Your task to perform on an android device: Go to privacy settings Image 0: 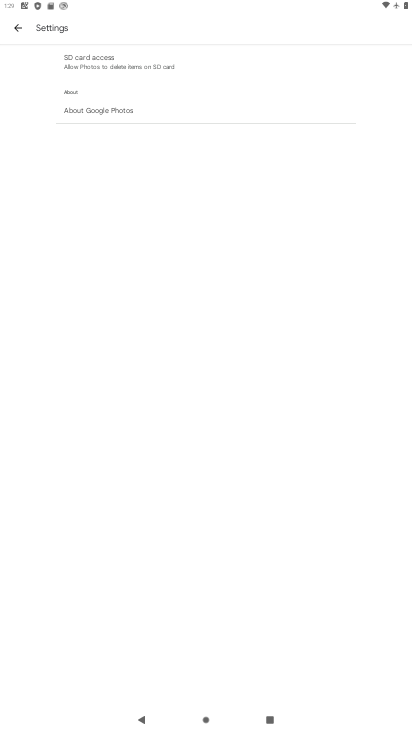
Step 0: drag from (288, 601) to (290, 457)
Your task to perform on an android device: Go to privacy settings Image 1: 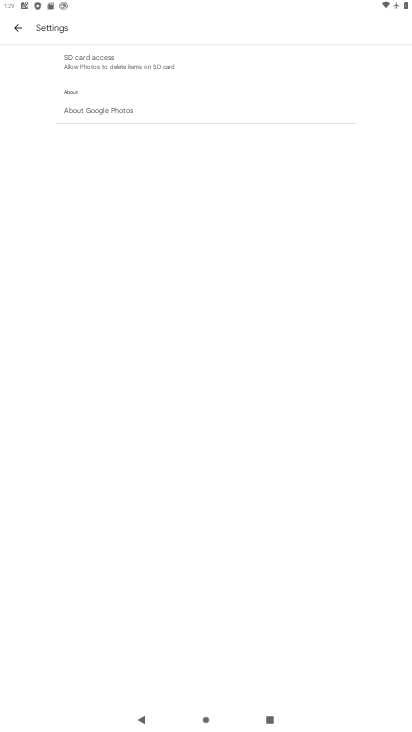
Step 1: press home button
Your task to perform on an android device: Go to privacy settings Image 2: 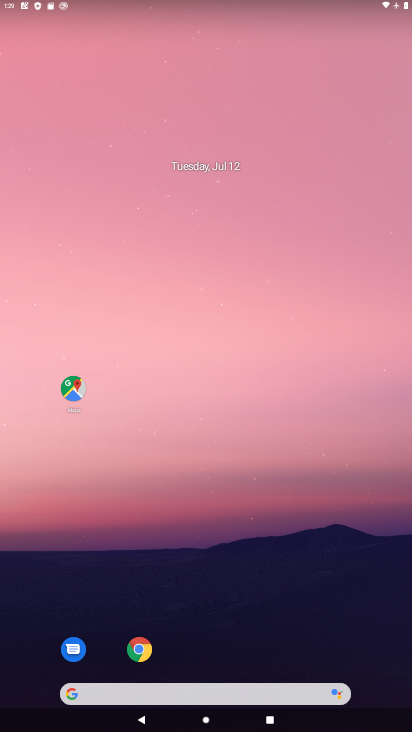
Step 2: drag from (299, 630) to (252, 284)
Your task to perform on an android device: Go to privacy settings Image 3: 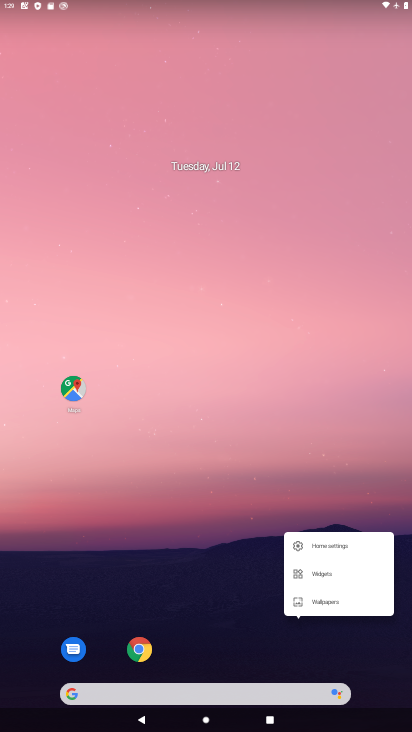
Step 3: click (205, 382)
Your task to perform on an android device: Go to privacy settings Image 4: 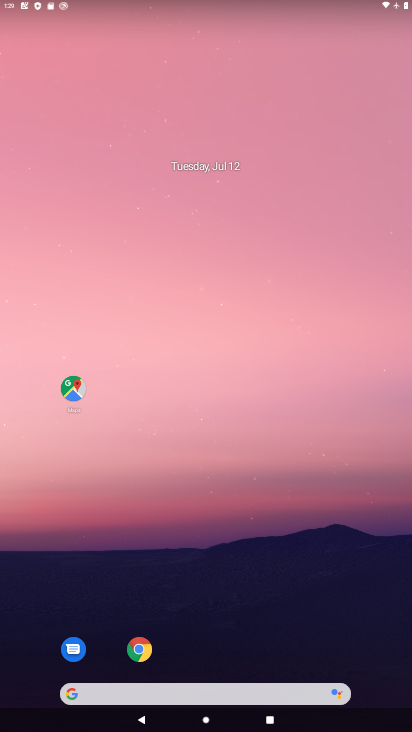
Step 4: drag from (203, 614) to (161, 112)
Your task to perform on an android device: Go to privacy settings Image 5: 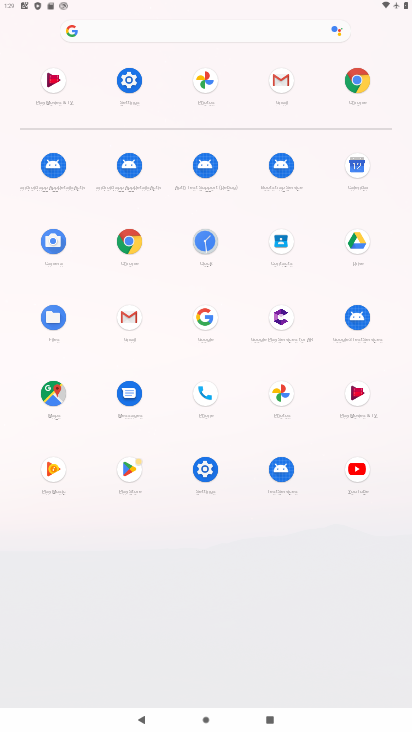
Step 5: click (138, 92)
Your task to perform on an android device: Go to privacy settings Image 6: 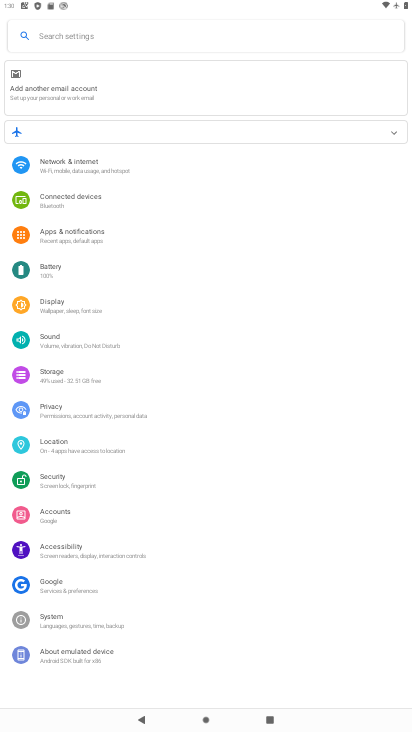
Step 6: click (75, 445)
Your task to perform on an android device: Go to privacy settings Image 7: 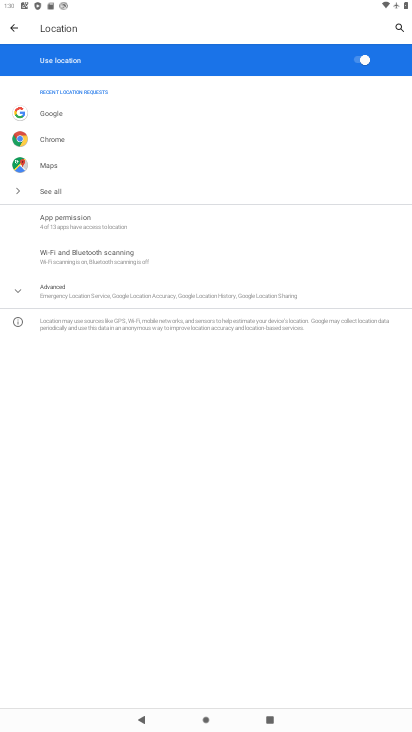
Step 7: task complete